Your task to perform on an android device: What's on my calendar tomorrow? Image 0: 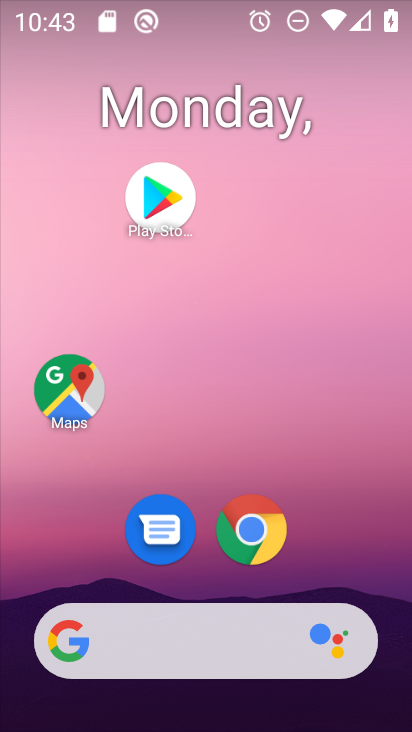
Step 0: drag from (342, 515) to (240, 187)
Your task to perform on an android device: What's on my calendar tomorrow? Image 1: 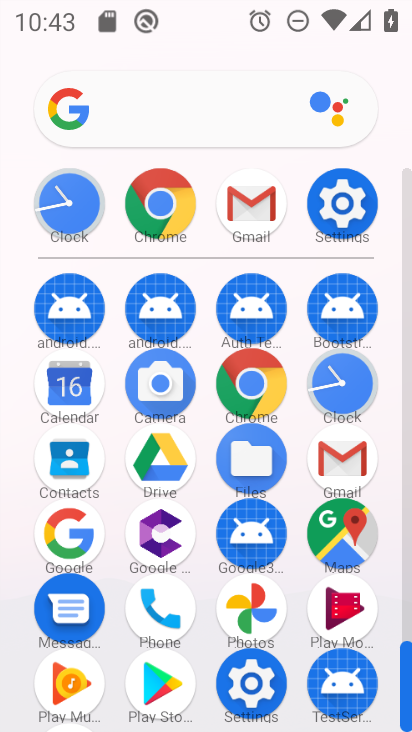
Step 1: click (62, 386)
Your task to perform on an android device: What's on my calendar tomorrow? Image 2: 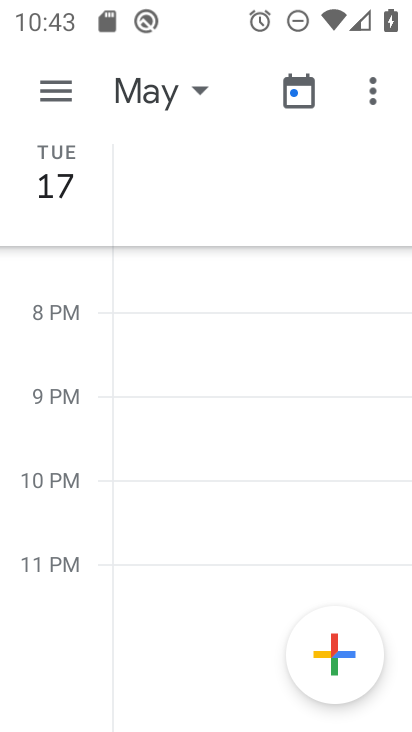
Step 2: click (62, 386)
Your task to perform on an android device: What's on my calendar tomorrow? Image 3: 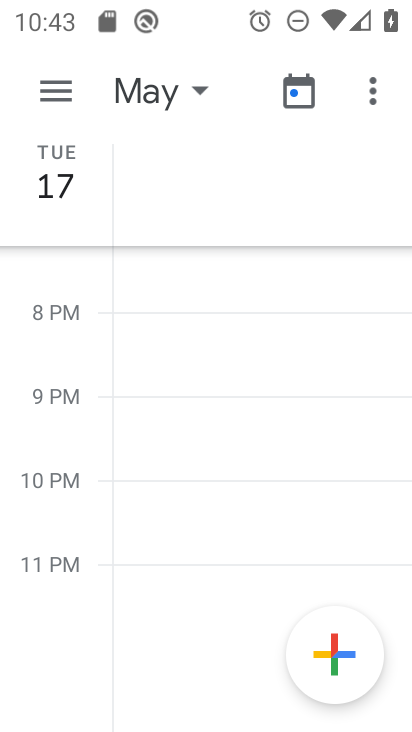
Step 3: click (223, 489)
Your task to perform on an android device: What's on my calendar tomorrow? Image 4: 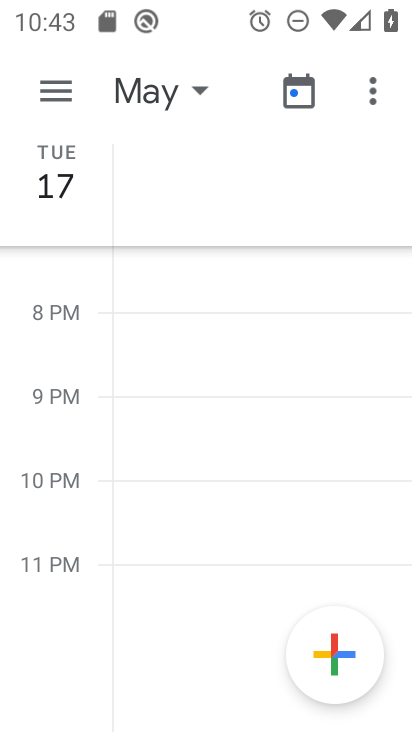
Step 4: task complete